Your task to perform on an android device: allow notifications from all sites in the chrome app Image 0: 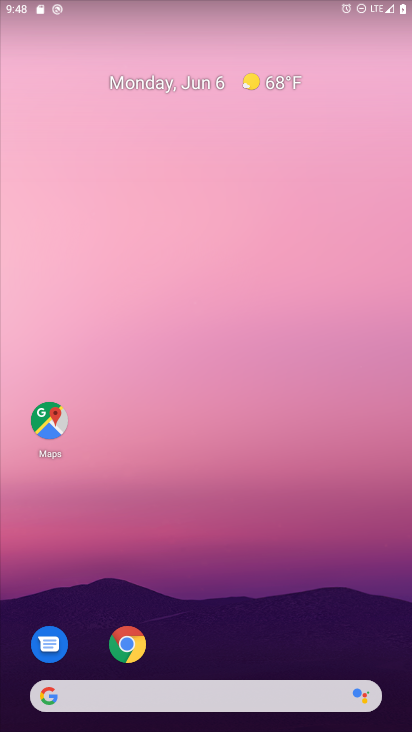
Step 0: drag from (265, 715) to (294, 195)
Your task to perform on an android device: allow notifications from all sites in the chrome app Image 1: 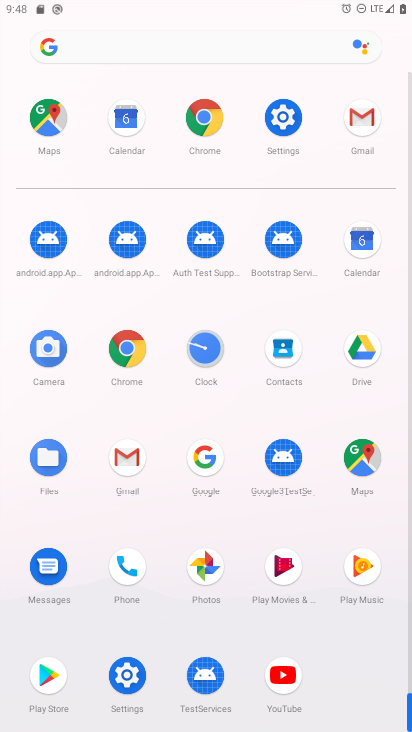
Step 1: click (214, 121)
Your task to perform on an android device: allow notifications from all sites in the chrome app Image 2: 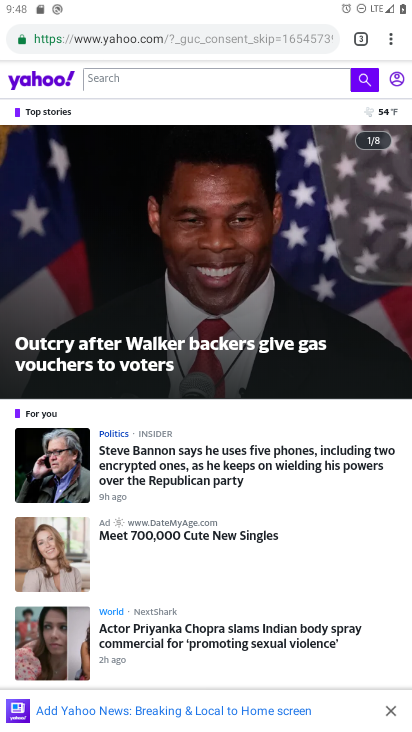
Step 2: click (390, 45)
Your task to perform on an android device: allow notifications from all sites in the chrome app Image 3: 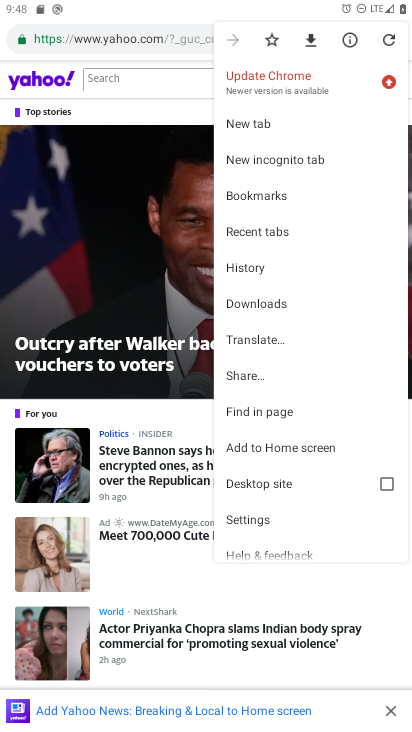
Step 3: click (252, 521)
Your task to perform on an android device: allow notifications from all sites in the chrome app Image 4: 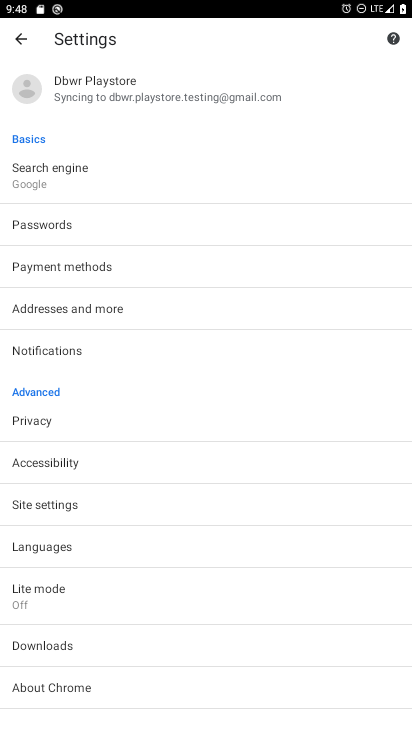
Step 4: click (66, 497)
Your task to perform on an android device: allow notifications from all sites in the chrome app Image 5: 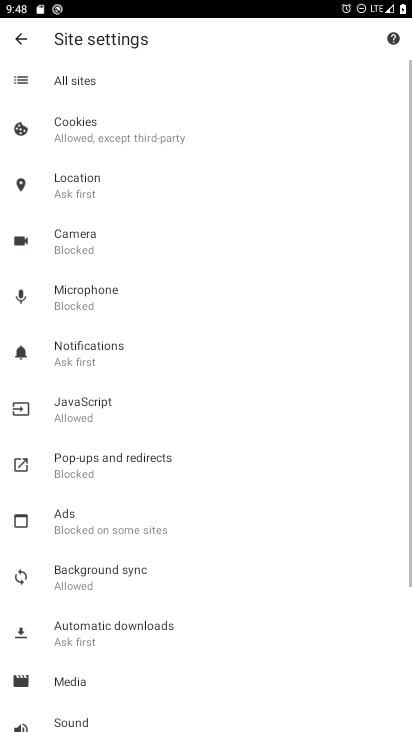
Step 5: click (93, 345)
Your task to perform on an android device: allow notifications from all sites in the chrome app Image 6: 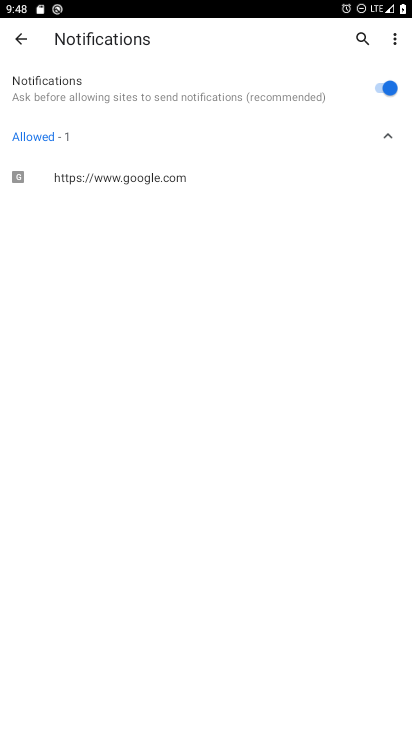
Step 6: click (387, 105)
Your task to perform on an android device: allow notifications from all sites in the chrome app Image 7: 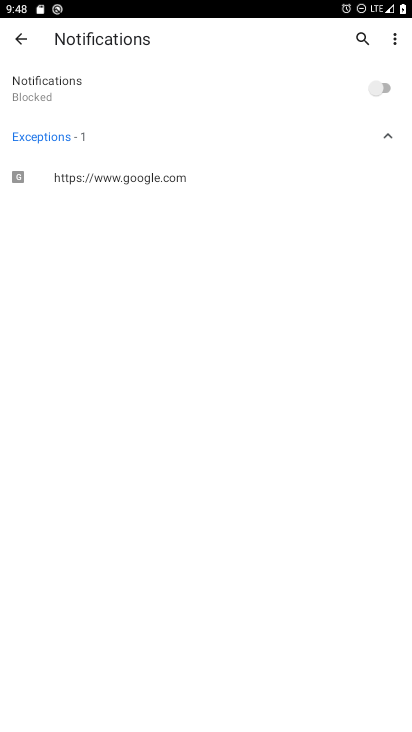
Step 7: click (387, 90)
Your task to perform on an android device: allow notifications from all sites in the chrome app Image 8: 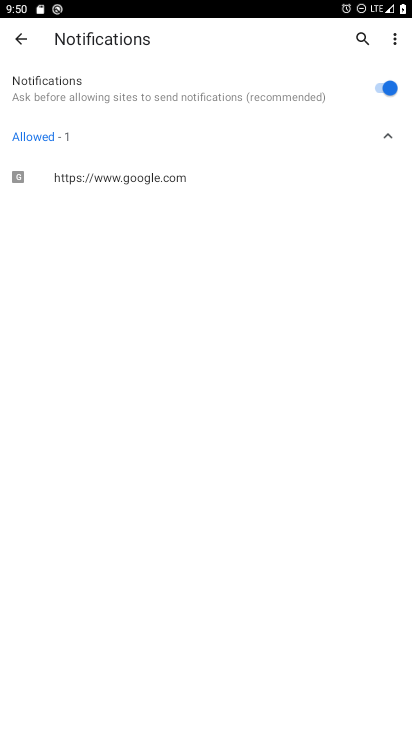
Step 8: task complete